Your task to perform on an android device: Open the calendar app, open the side menu, and click the "Day" option Image 0: 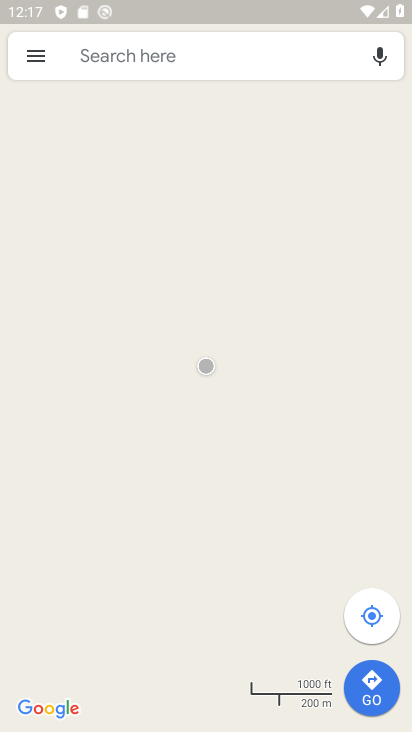
Step 0: press home button
Your task to perform on an android device: Open the calendar app, open the side menu, and click the "Day" option Image 1: 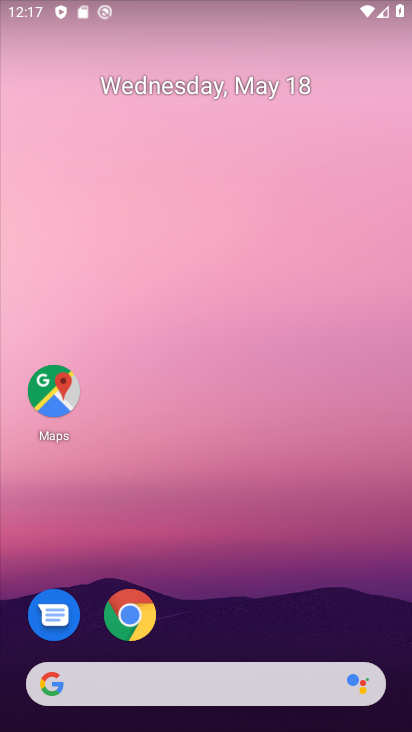
Step 1: drag from (233, 603) to (230, 116)
Your task to perform on an android device: Open the calendar app, open the side menu, and click the "Day" option Image 2: 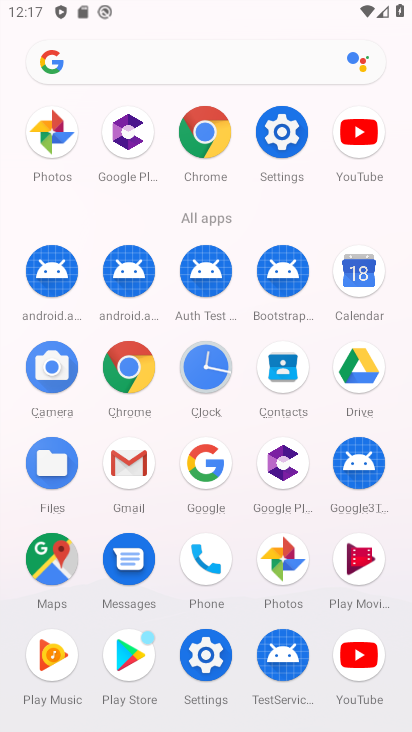
Step 2: click (356, 278)
Your task to perform on an android device: Open the calendar app, open the side menu, and click the "Day" option Image 3: 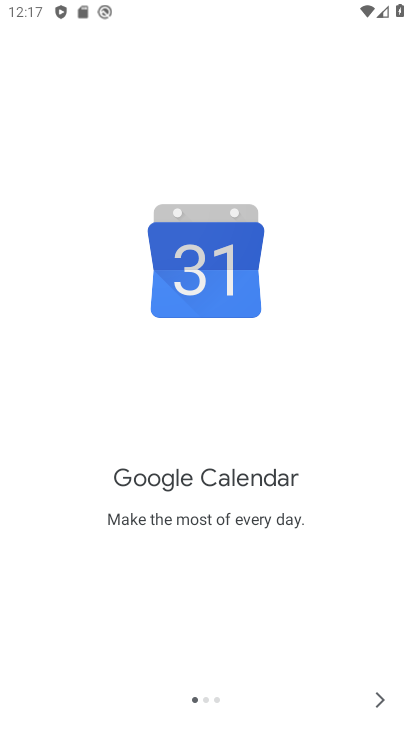
Step 3: click (366, 704)
Your task to perform on an android device: Open the calendar app, open the side menu, and click the "Day" option Image 4: 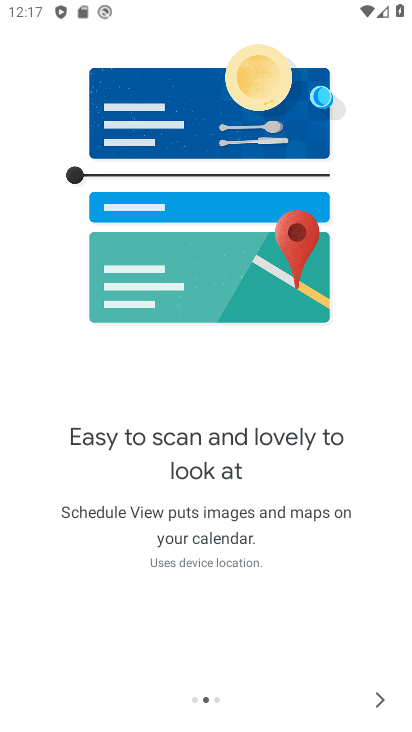
Step 4: click (367, 705)
Your task to perform on an android device: Open the calendar app, open the side menu, and click the "Day" option Image 5: 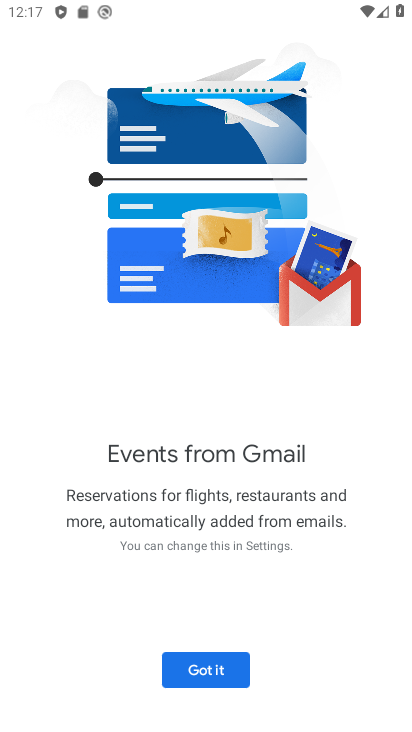
Step 5: click (213, 678)
Your task to perform on an android device: Open the calendar app, open the side menu, and click the "Day" option Image 6: 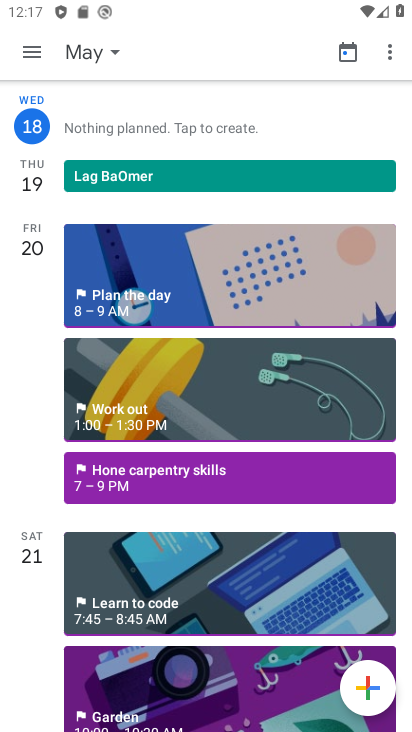
Step 6: click (34, 51)
Your task to perform on an android device: Open the calendar app, open the side menu, and click the "Day" option Image 7: 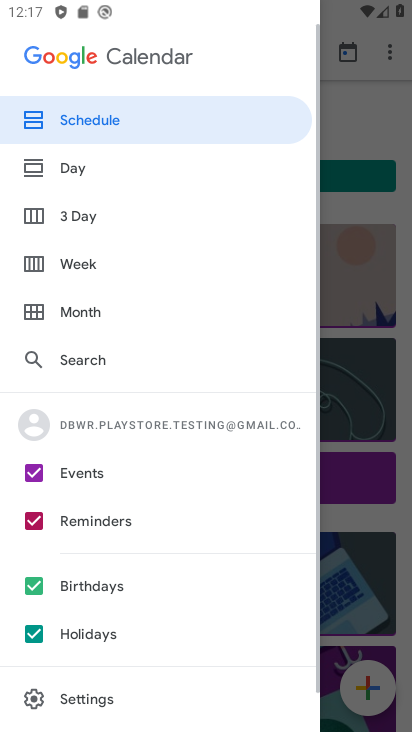
Step 7: click (65, 165)
Your task to perform on an android device: Open the calendar app, open the side menu, and click the "Day" option Image 8: 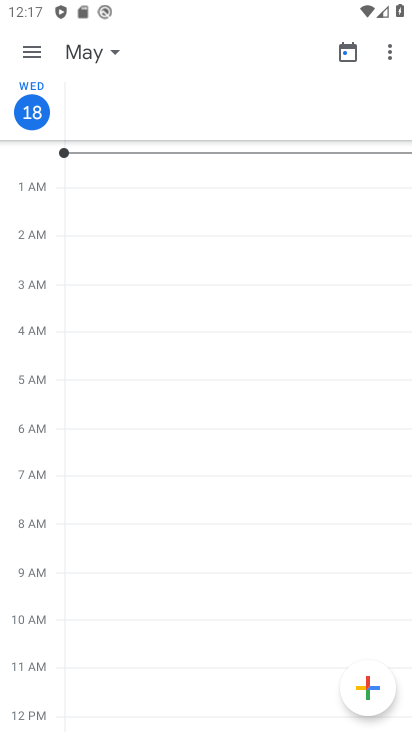
Step 8: task complete